Your task to perform on an android device: delete the emails in spam in the gmail app Image 0: 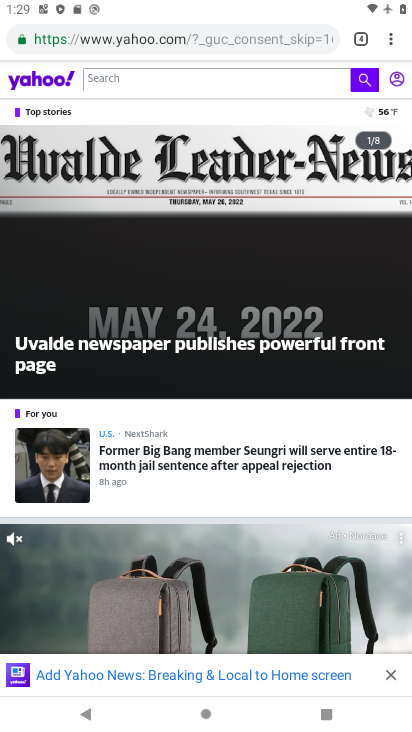
Step 0: press home button
Your task to perform on an android device: delete the emails in spam in the gmail app Image 1: 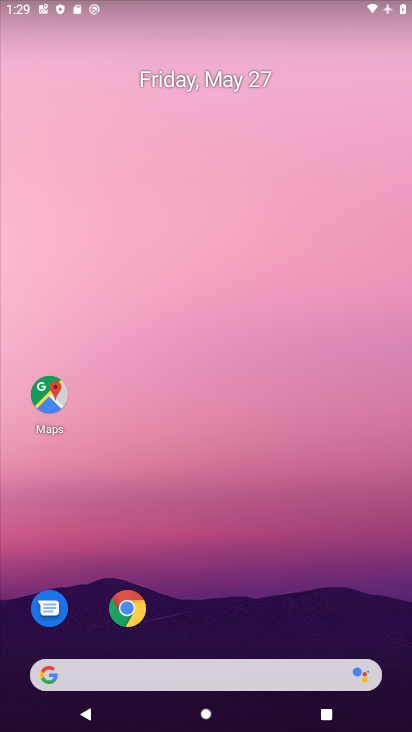
Step 1: drag from (153, 668) to (306, 99)
Your task to perform on an android device: delete the emails in spam in the gmail app Image 2: 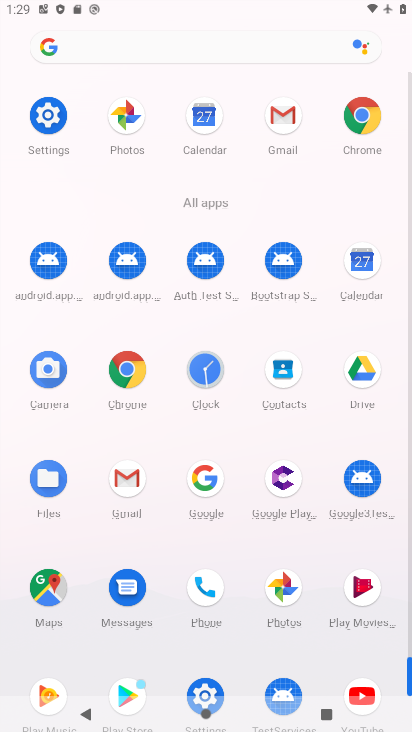
Step 2: click (283, 123)
Your task to perform on an android device: delete the emails in spam in the gmail app Image 3: 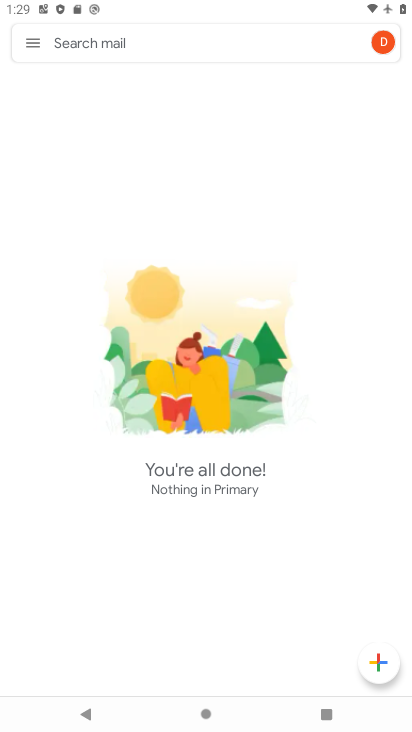
Step 3: click (31, 40)
Your task to perform on an android device: delete the emails in spam in the gmail app Image 4: 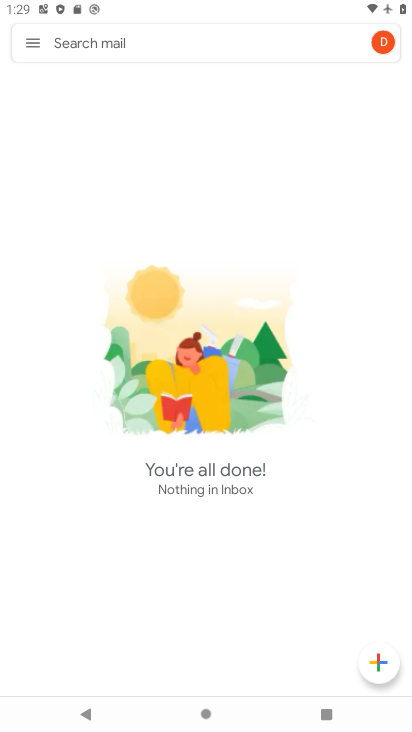
Step 4: click (34, 39)
Your task to perform on an android device: delete the emails in spam in the gmail app Image 5: 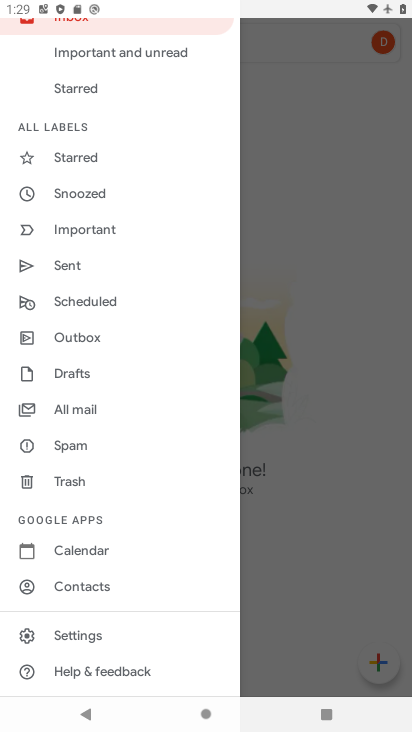
Step 5: click (78, 446)
Your task to perform on an android device: delete the emails in spam in the gmail app Image 6: 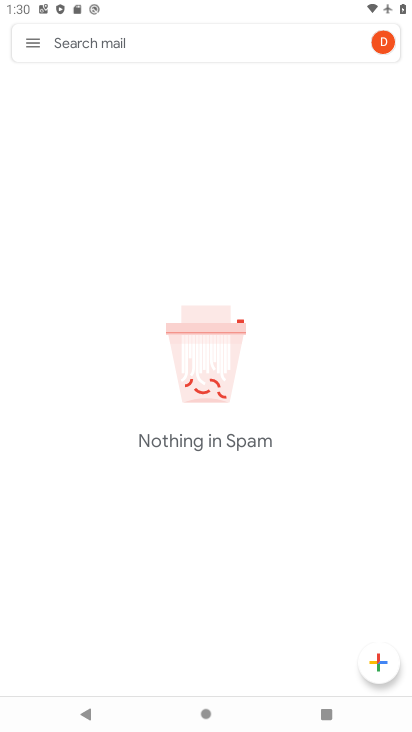
Step 6: task complete